Your task to perform on an android device: change text size in settings app Image 0: 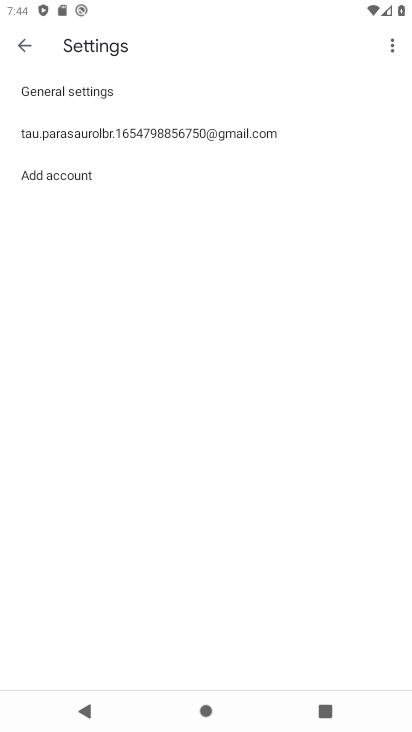
Step 0: press home button
Your task to perform on an android device: change text size in settings app Image 1: 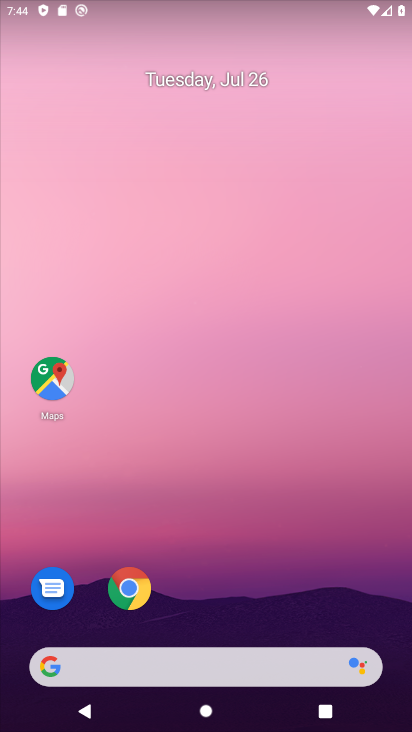
Step 1: drag from (156, 551) to (191, 129)
Your task to perform on an android device: change text size in settings app Image 2: 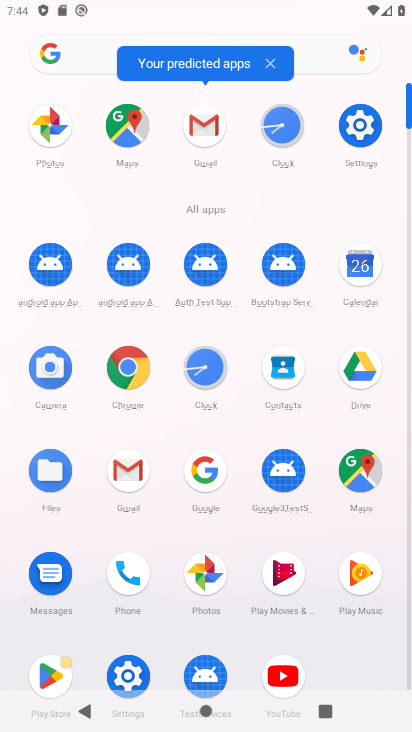
Step 2: click (359, 141)
Your task to perform on an android device: change text size in settings app Image 3: 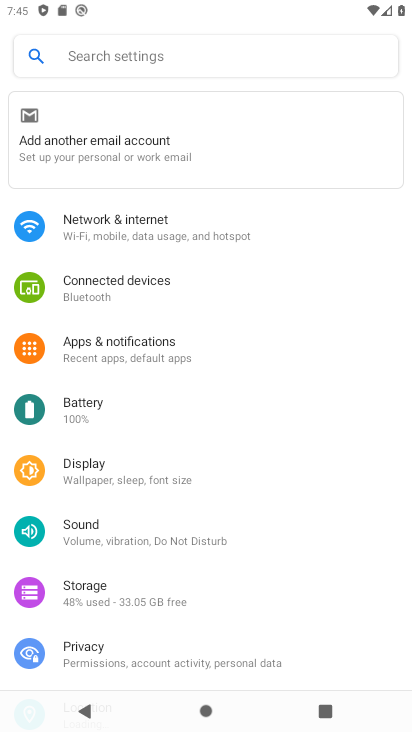
Step 3: click (112, 477)
Your task to perform on an android device: change text size in settings app Image 4: 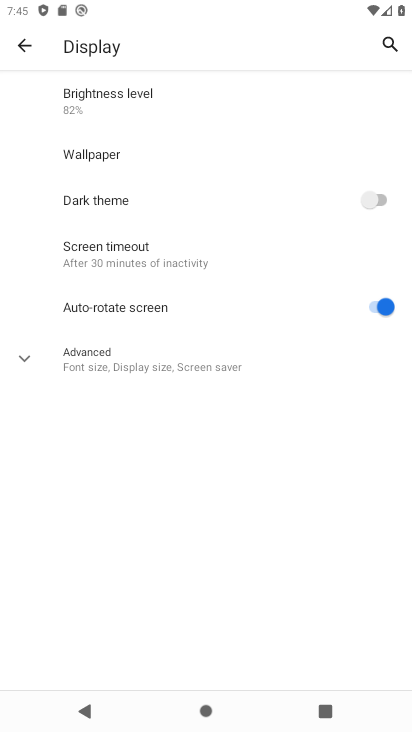
Step 4: click (118, 362)
Your task to perform on an android device: change text size in settings app Image 5: 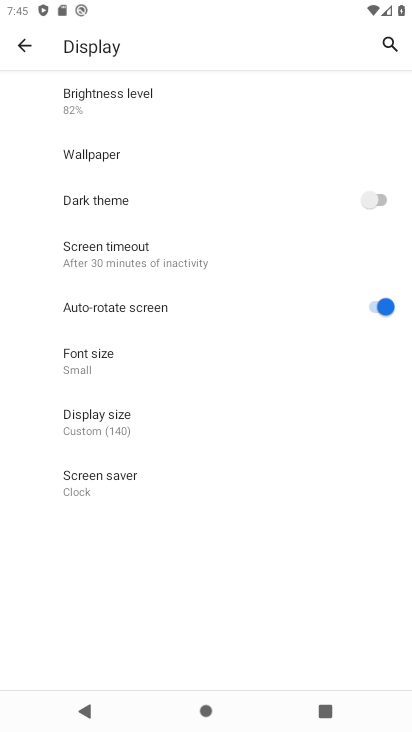
Step 5: click (87, 355)
Your task to perform on an android device: change text size in settings app Image 6: 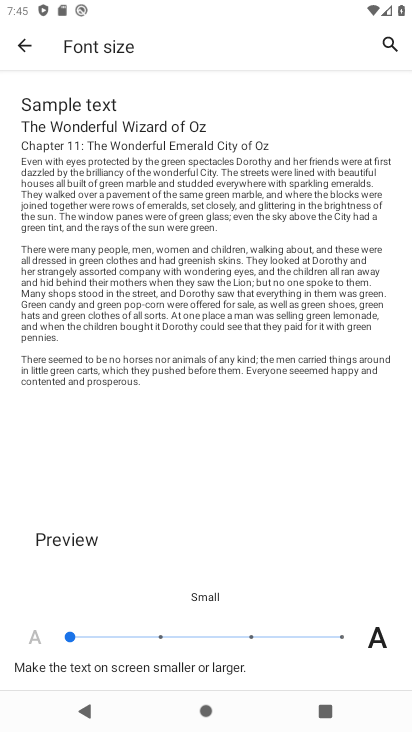
Step 6: click (153, 638)
Your task to perform on an android device: change text size in settings app Image 7: 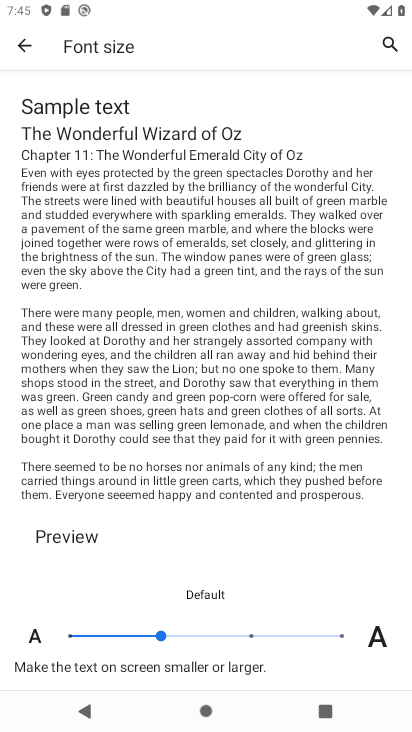
Step 7: task complete